Your task to perform on an android device: change timer sound Image 0: 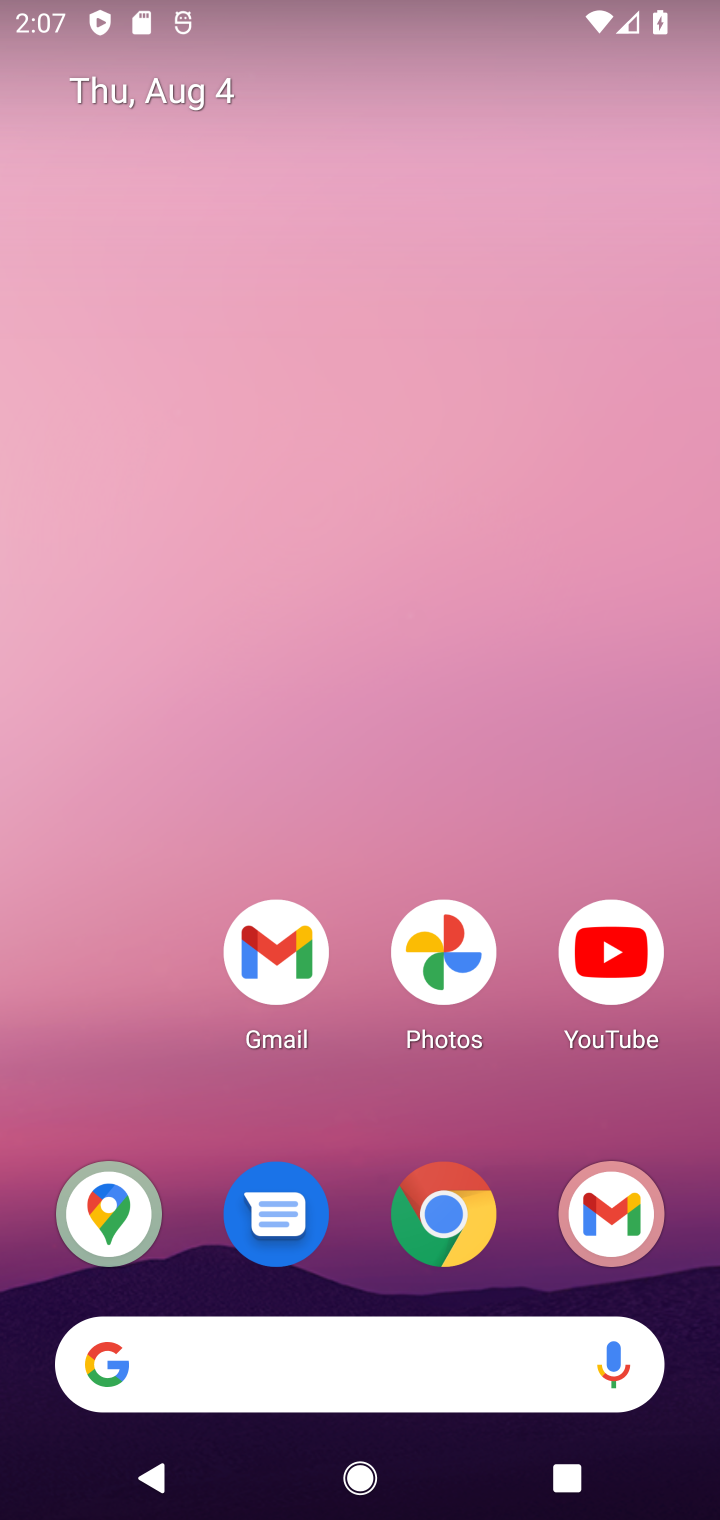
Step 0: drag from (78, 786) to (93, 11)
Your task to perform on an android device: change timer sound Image 1: 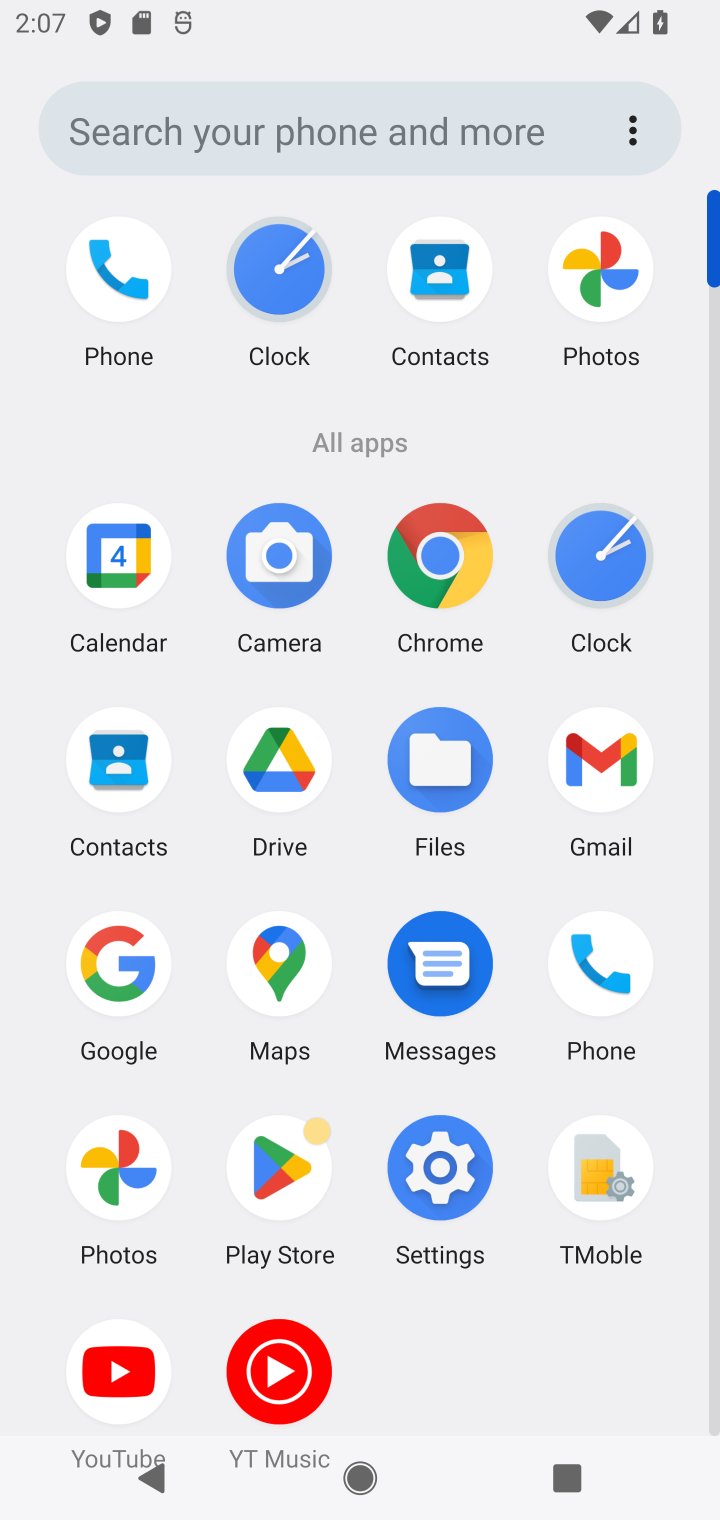
Step 1: click (619, 574)
Your task to perform on an android device: change timer sound Image 2: 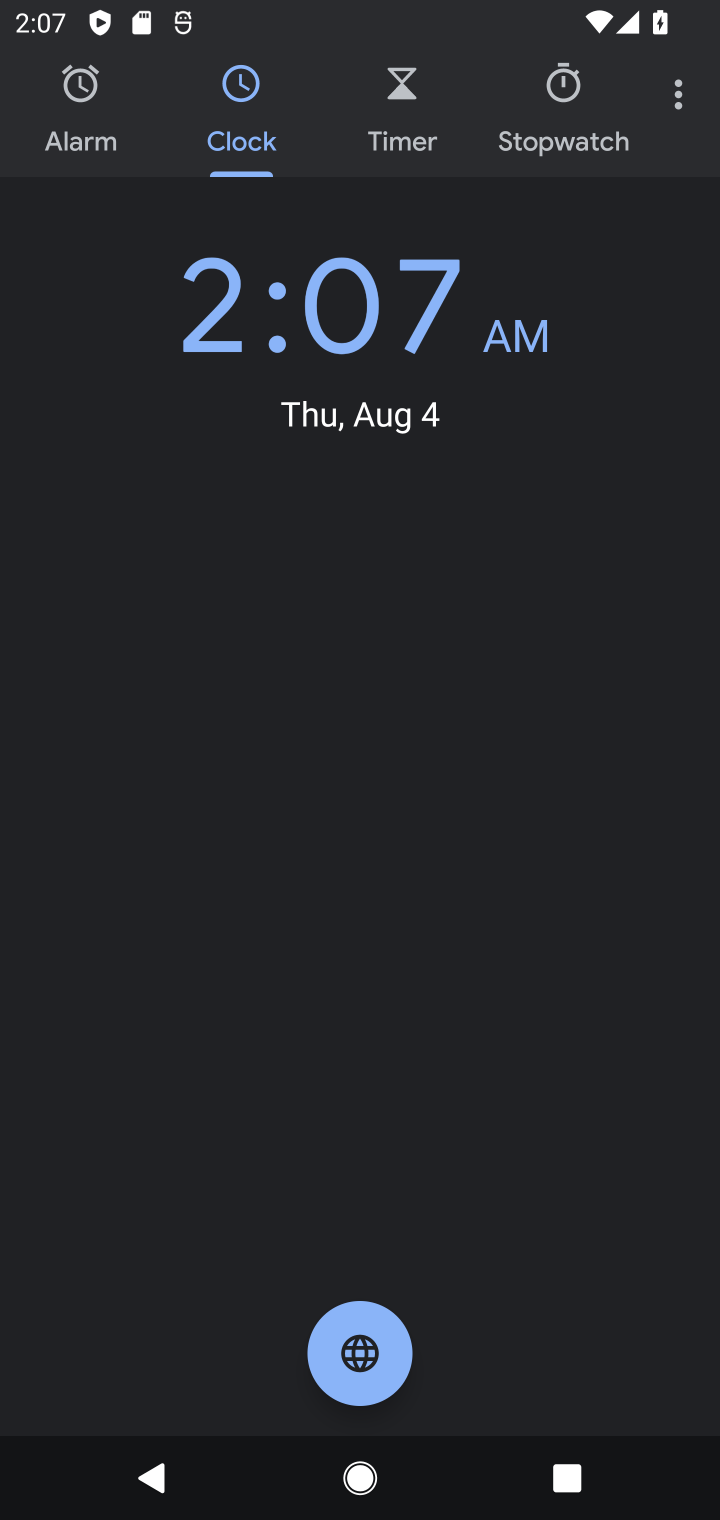
Step 2: click (656, 102)
Your task to perform on an android device: change timer sound Image 3: 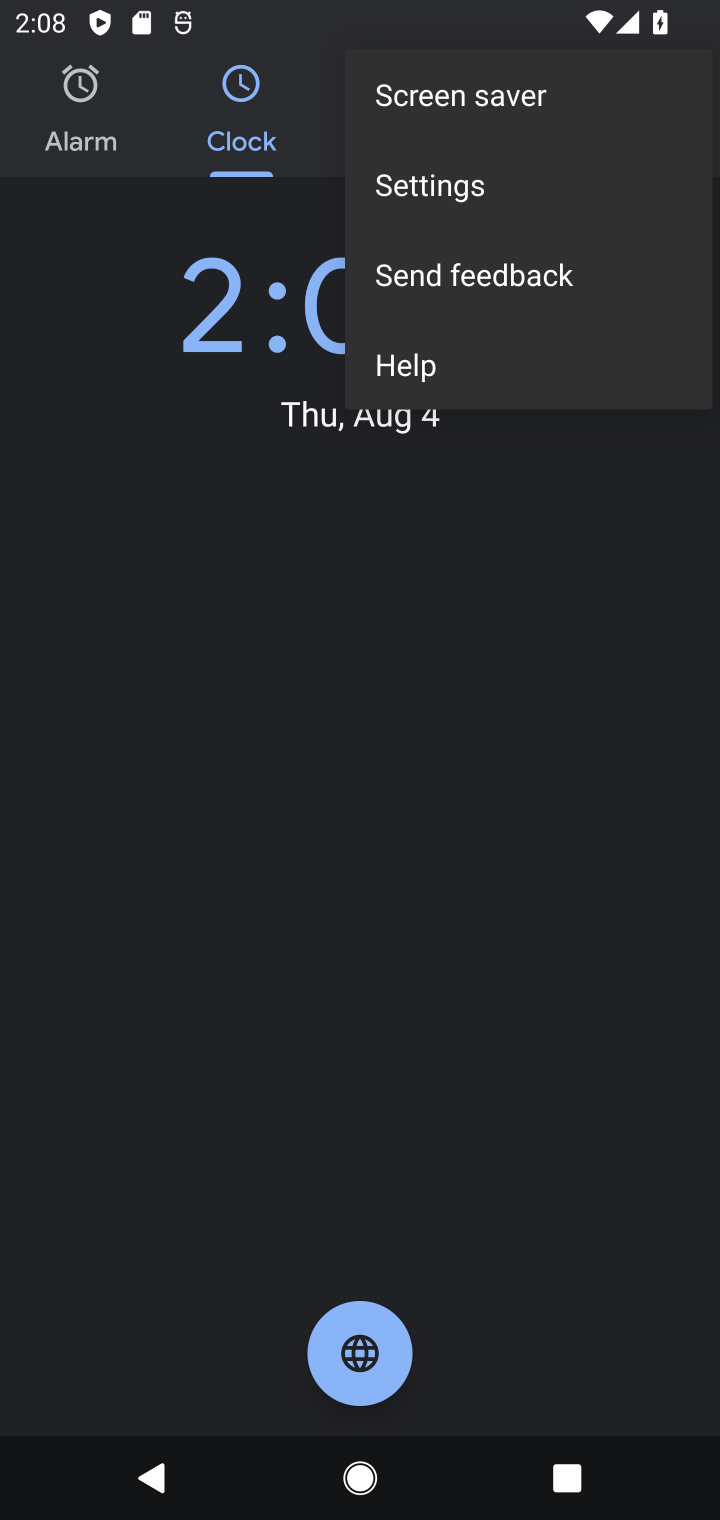
Step 3: click (500, 191)
Your task to perform on an android device: change timer sound Image 4: 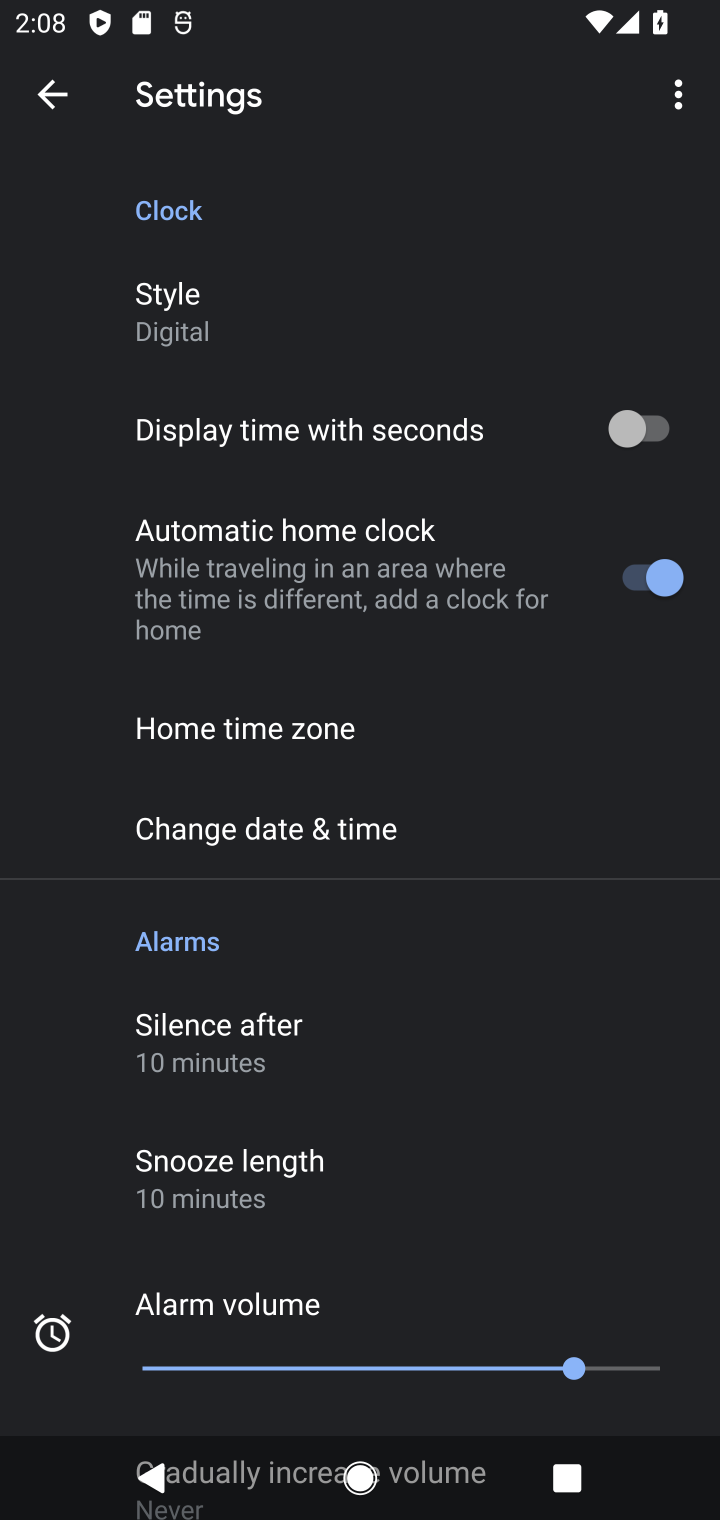
Step 4: drag from (243, 1191) to (220, 561)
Your task to perform on an android device: change timer sound Image 5: 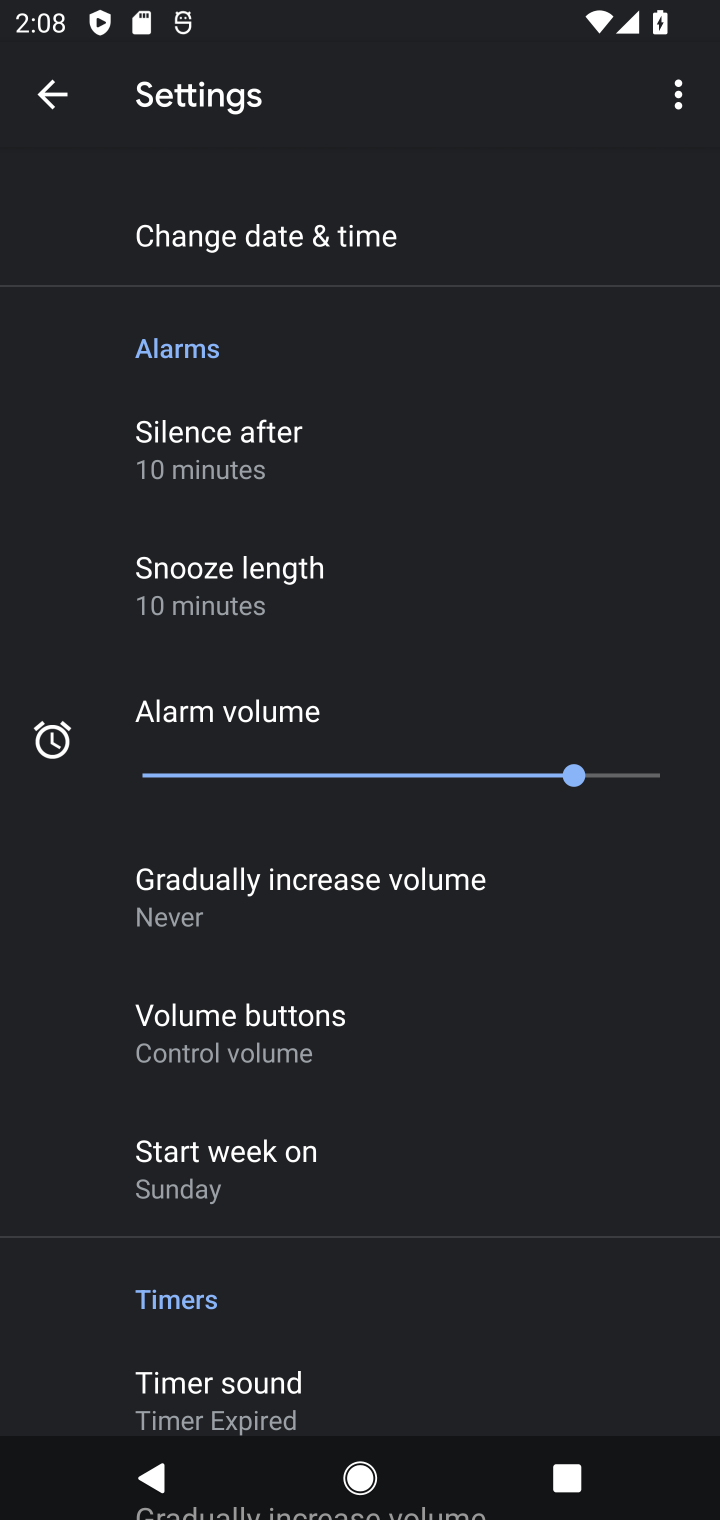
Step 5: drag from (279, 1155) to (258, 535)
Your task to perform on an android device: change timer sound Image 6: 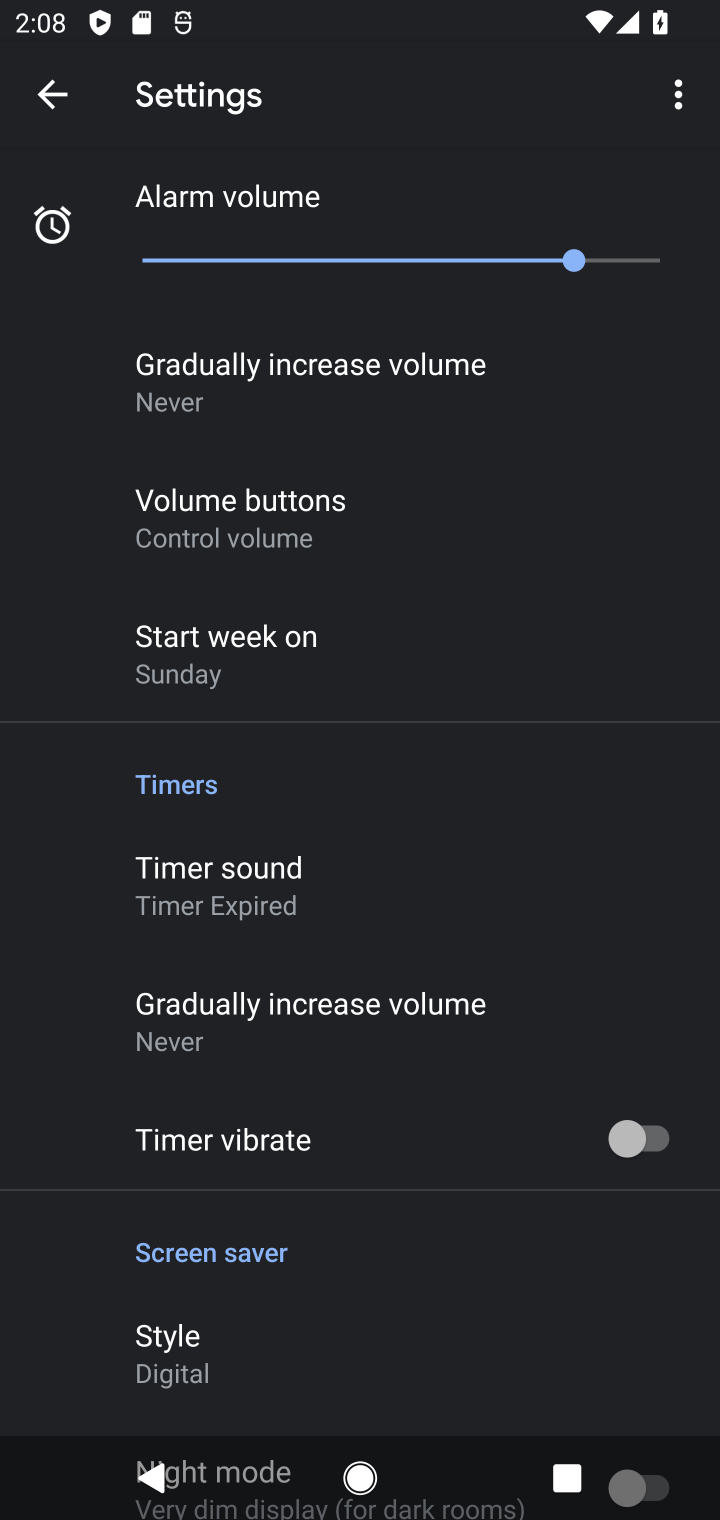
Step 6: click (283, 917)
Your task to perform on an android device: change timer sound Image 7: 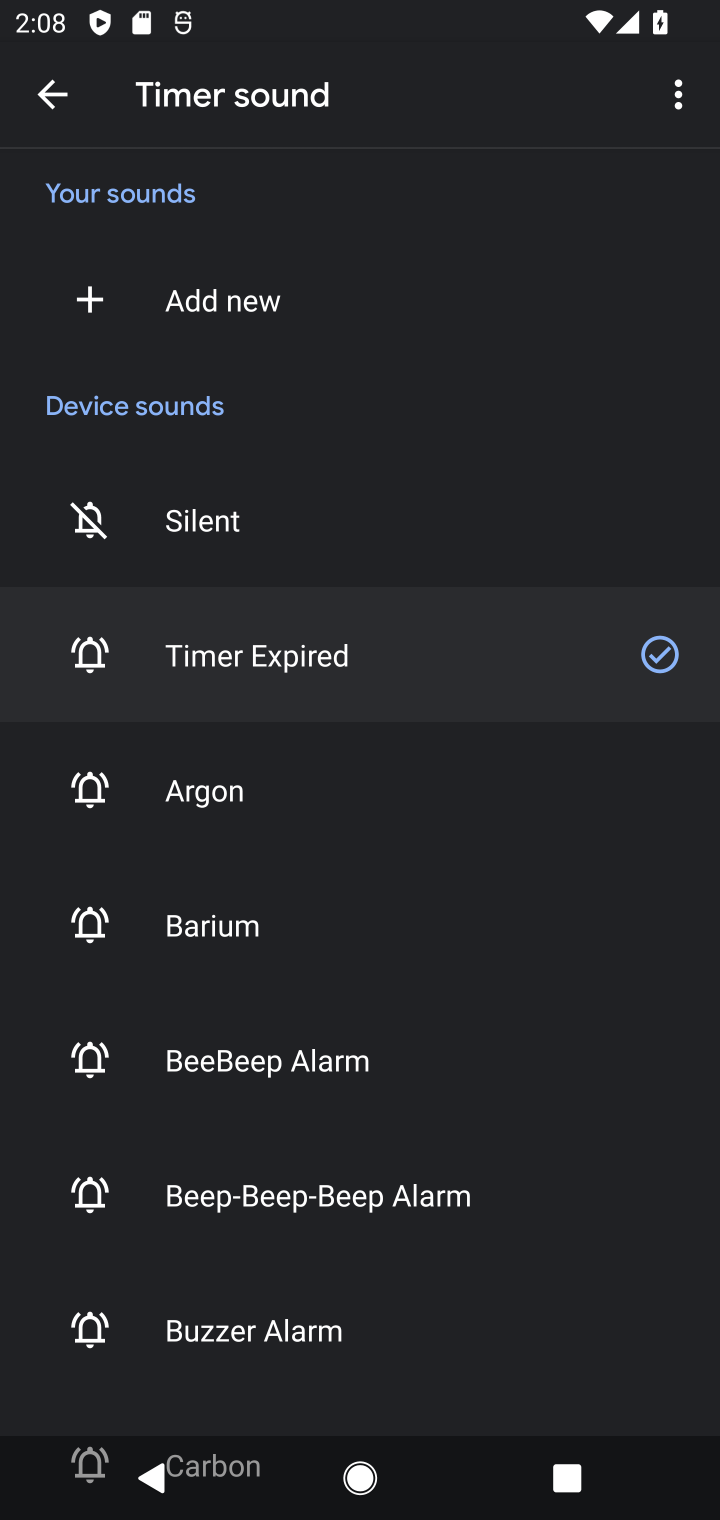
Step 7: click (173, 935)
Your task to perform on an android device: change timer sound Image 8: 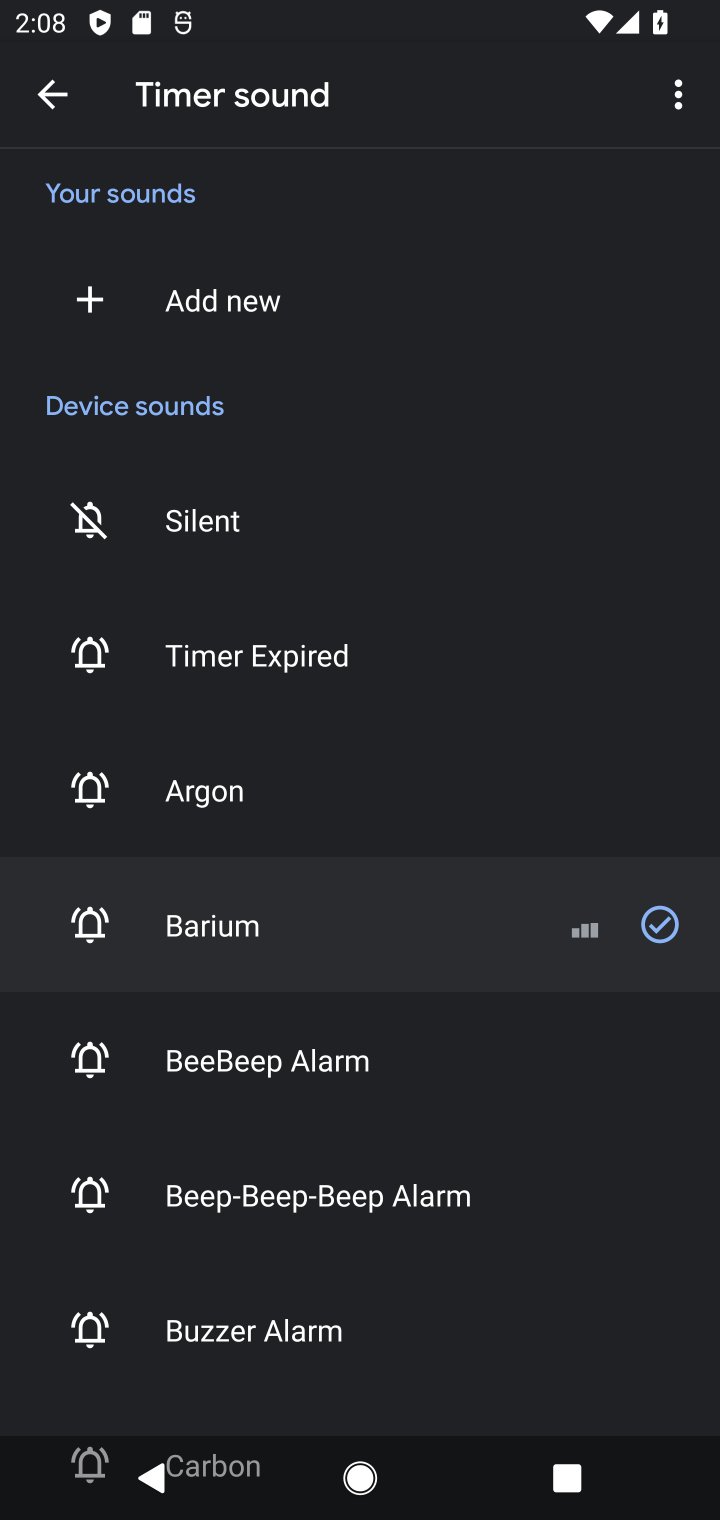
Step 8: task complete